Your task to perform on an android device: Check the news Image 0: 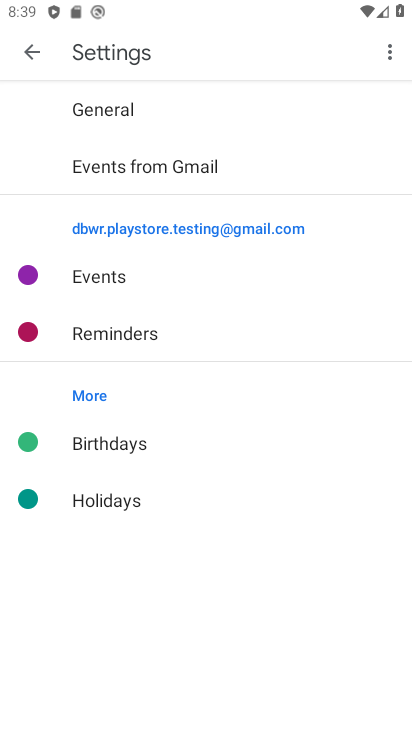
Step 0: press home button
Your task to perform on an android device: Check the news Image 1: 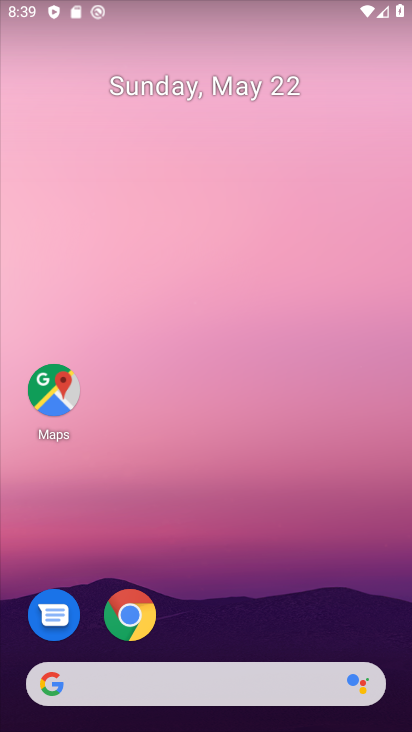
Step 1: drag from (232, 525) to (259, 211)
Your task to perform on an android device: Check the news Image 2: 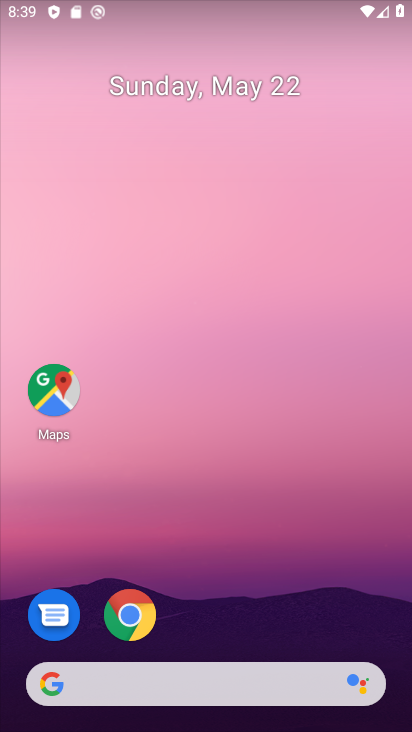
Step 2: click (133, 616)
Your task to perform on an android device: Check the news Image 3: 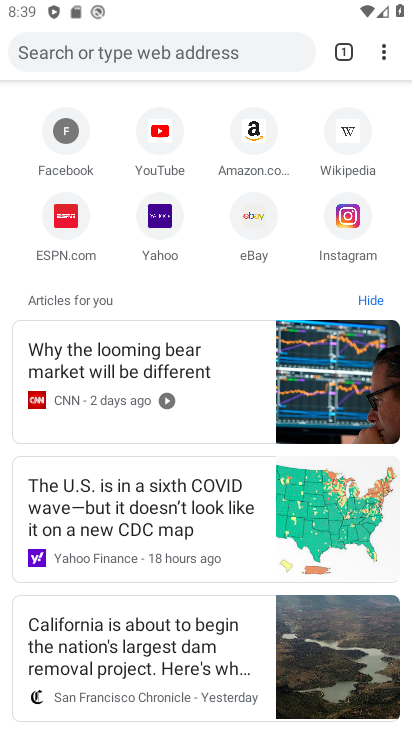
Step 3: click (174, 40)
Your task to perform on an android device: Check the news Image 4: 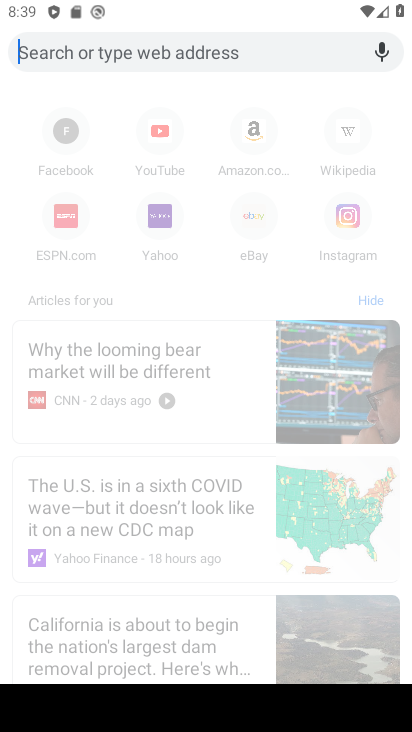
Step 4: type "Check the news"
Your task to perform on an android device: Check the news Image 5: 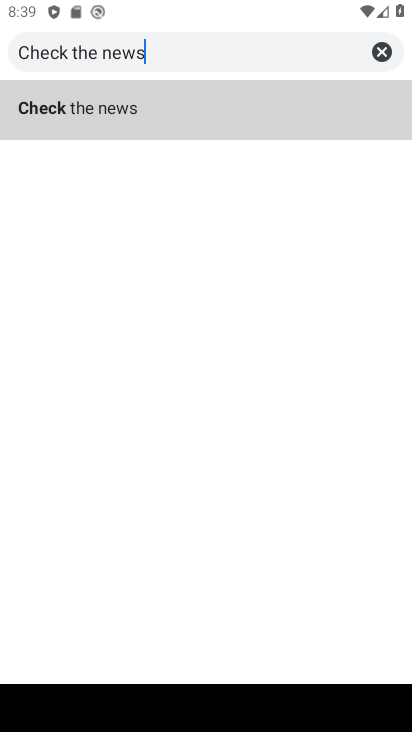
Step 5: click (287, 105)
Your task to perform on an android device: Check the news Image 6: 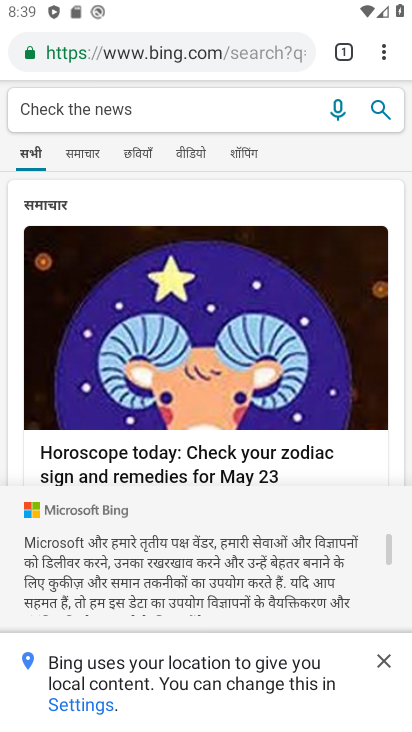
Step 6: task complete